Your task to perform on an android device: Open Amazon Image 0: 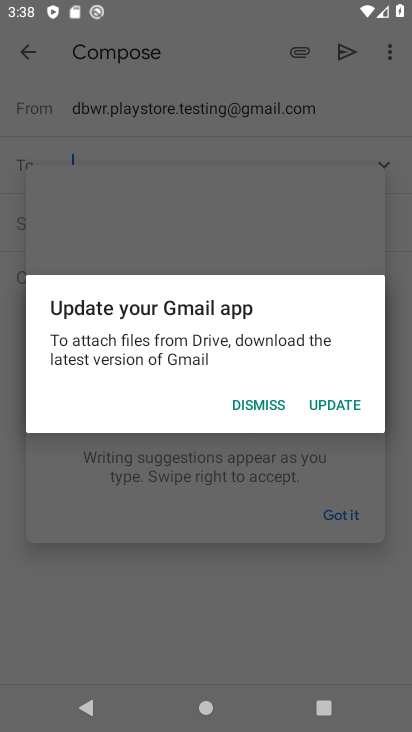
Step 0: press home button
Your task to perform on an android device: Open Amazon Image 1: 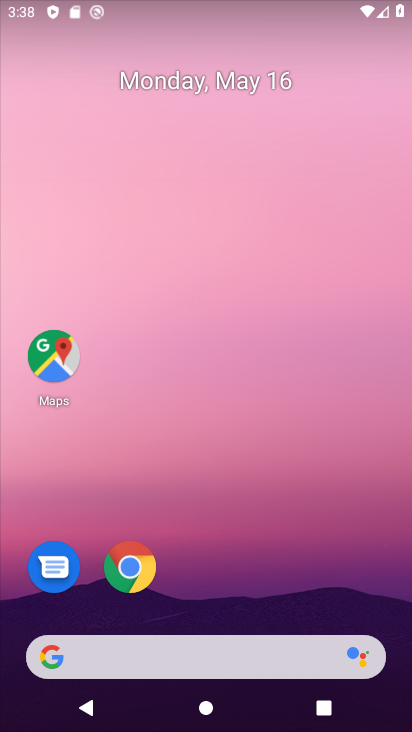
Step 1: drag from (233, 686) to (229, 29)
Your task to perform on an android device: Open Amazon Image 2: 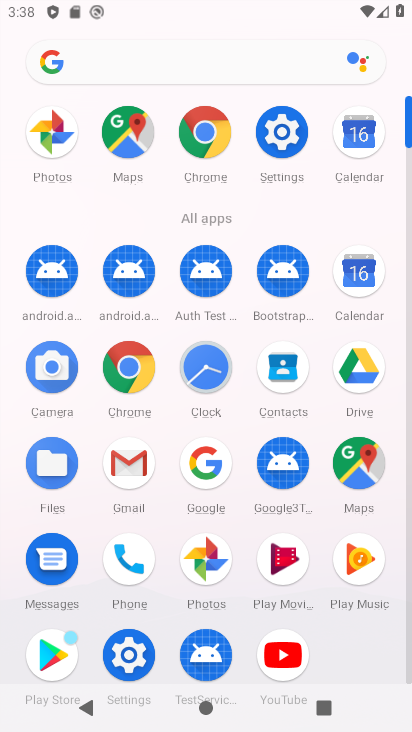
Step 2: click (122, 369)
Your task to perform on an android device: Open Amazon Image 3: 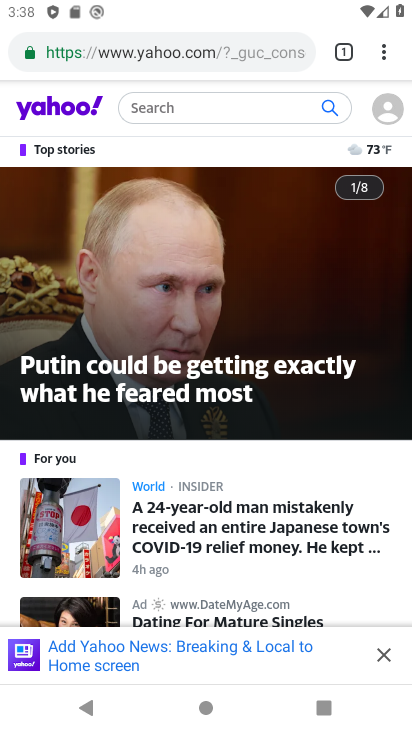
Step 3: click (379, 53)
Your task to perform on an android device: Open Amazon Image 4: 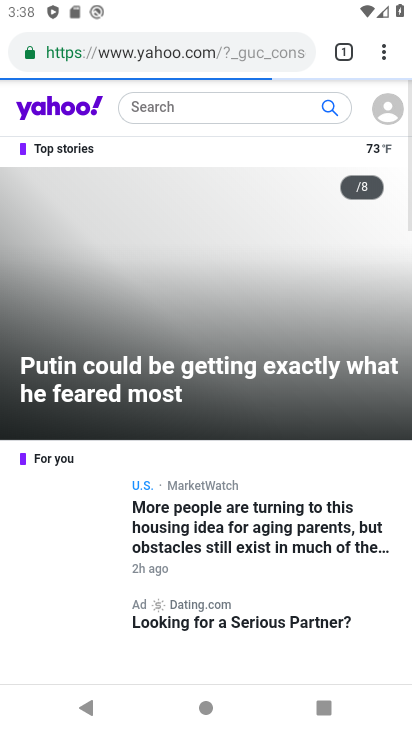
Step 4: drag from (380, 44) to (217, 109)
Your task to perform on an android device: Open Amazon Image 5: 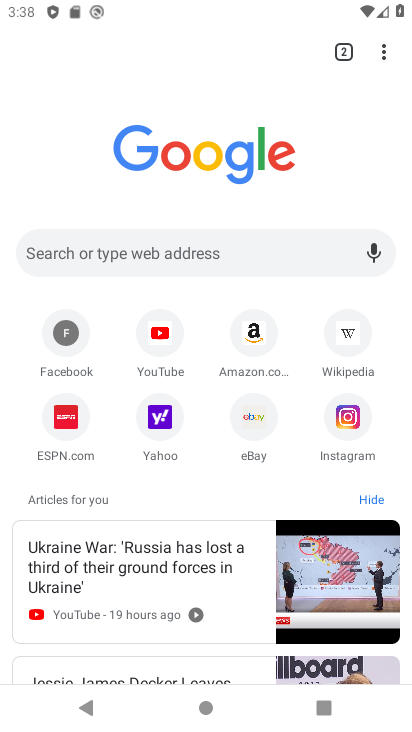
Step 5: click (256, 342)
Your task to perform on an android device: Open Amazon Image 6: 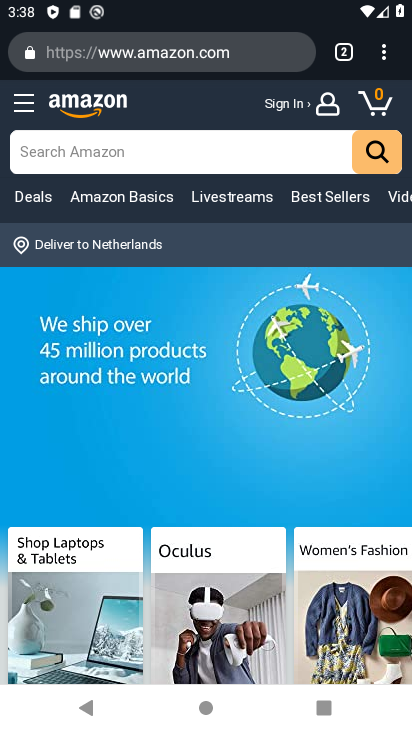
Step 6: task complete